Your task to perform on an android device: What's the weather going to be this weekend? Image 0: 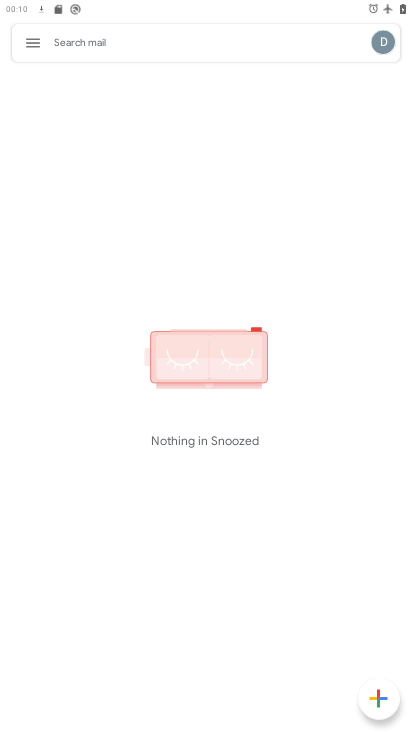
Step 0: press home button
Your task to perform on an android device: What's the weather going to be this weekend? Image 1: 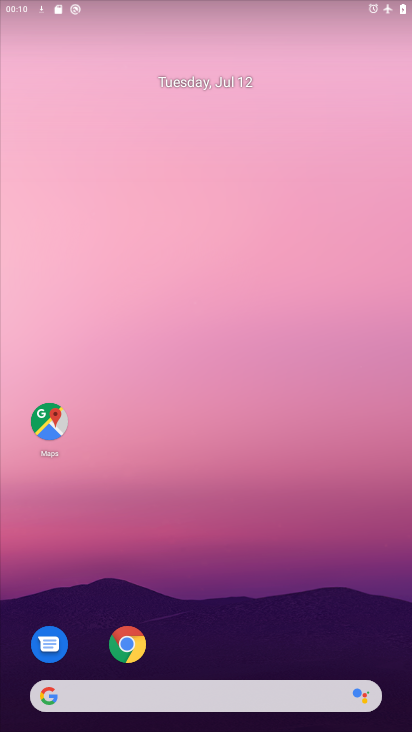
Step 1: drag from (334, 627) to (320, 326)
Your task to perform on an android device: What's the weather going to be this weekend? Image 2: 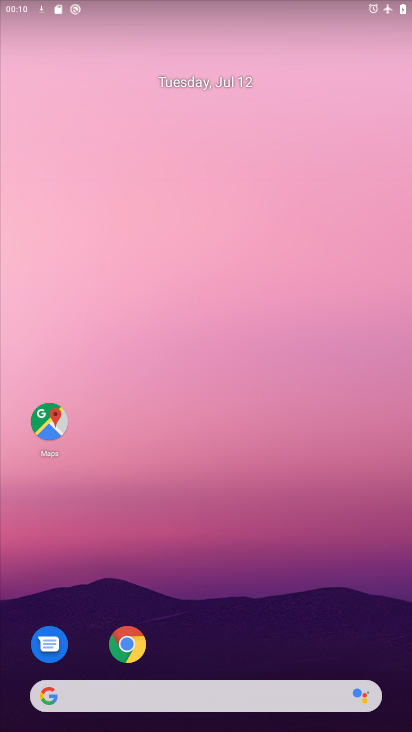
Step 2: drag from (270, 627) to (260, 358)
Your task to perform on an android device: What's the weather going to be this weekend? Image 3: 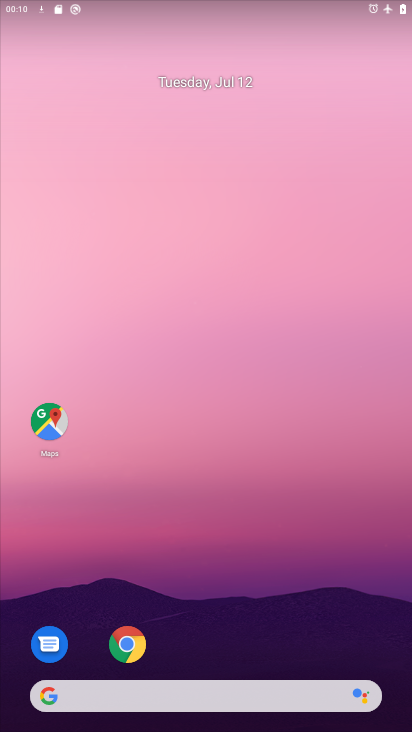
Step 3: drag from (200, 640) to (189, 171)
Your task to perform on an android device: What's the weather going to be this weekend? Image 4: 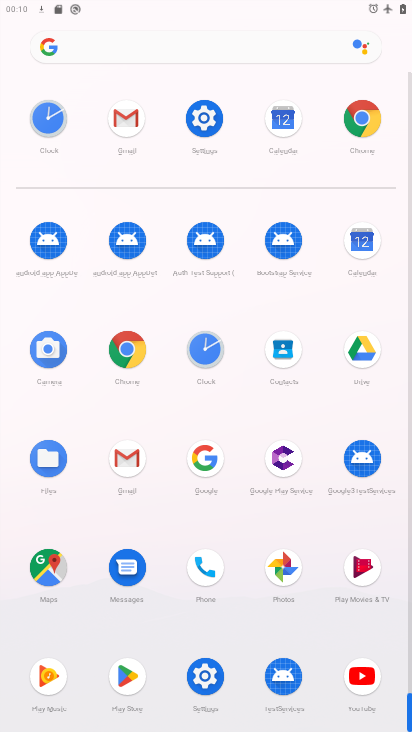
Step 4: click (284, 126)
Your task to perform on an android device: What's the weather going to be this weekend? Image 5: 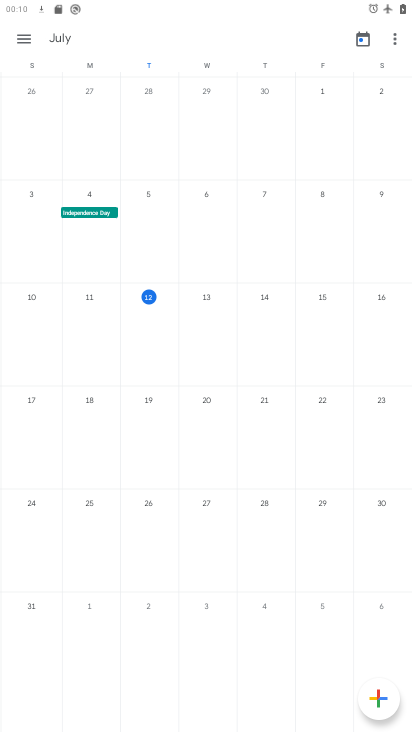
Step 5: click (21, 26)
Your task to perform on an android device: What's the weather going to be this weekend? Image 6: 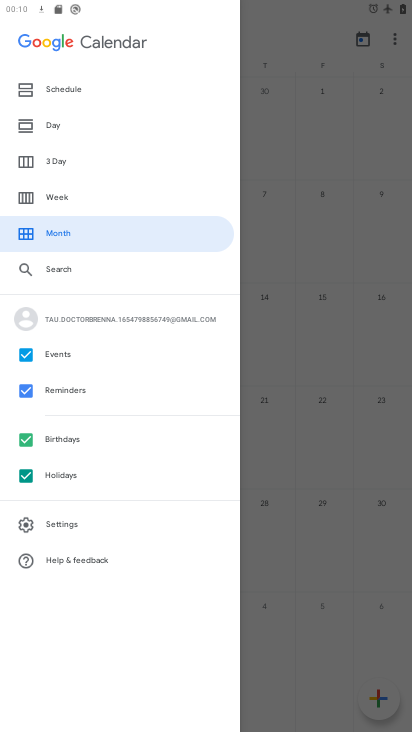
Step 6: click (80, 185)
Your task to perform on an android device: What's the weather going to be this weekend? Image 7: 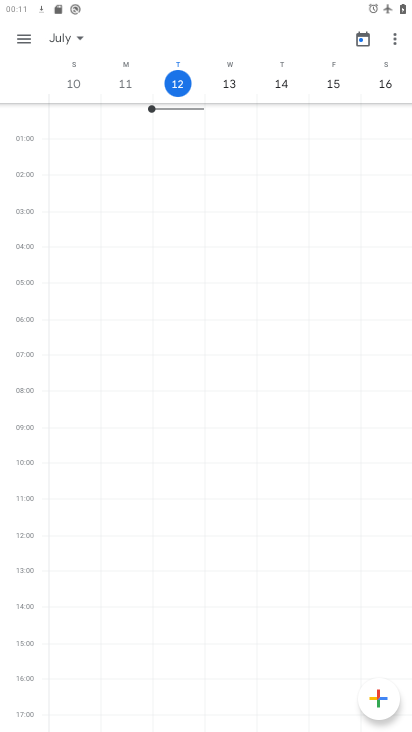
Step 7: task complete